Your task to perform on an android device: set default search engine in the chrome app Image 0: 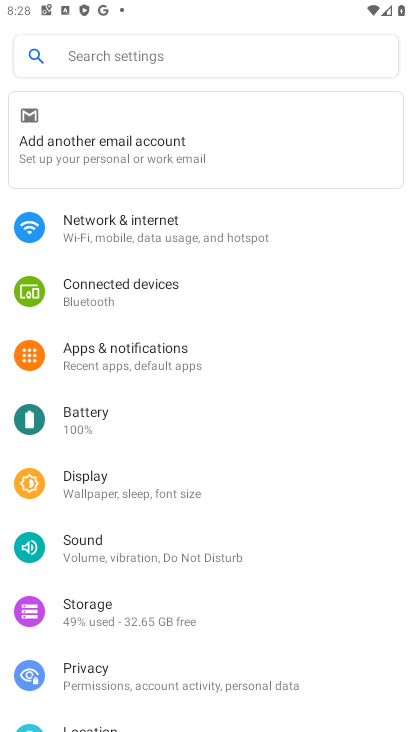
Step 0: press home button
Your task to perform on an android device: set default search engine in the chrome app Image 1: 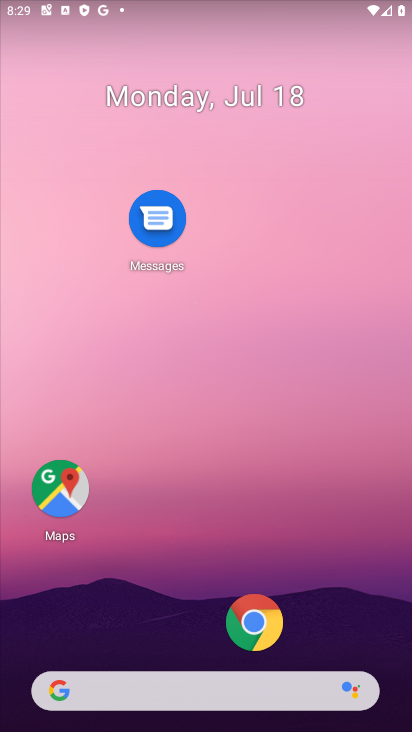
Step 1: drag from (212, 678) to (230, 144)
Your task to perform on an android device: set default search engine in the chrome app Image 2: 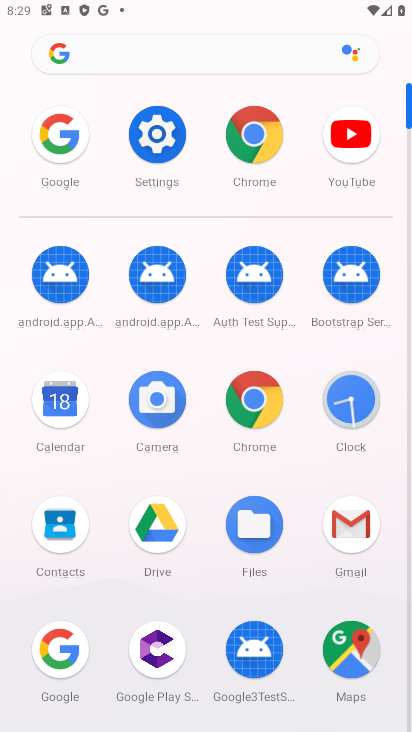
Step 2: click (261, 403)
Your task to perform on an android device: set default search engine in the chrome app Image 3: 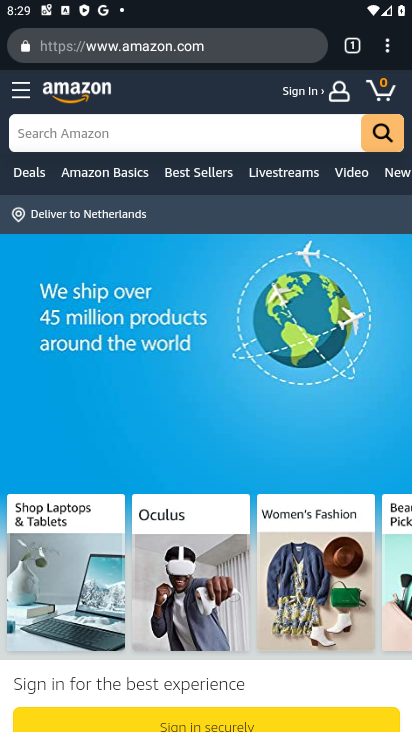
Step 3: click (387, 55)
Your task to perform on an android device: set default search engine in the chrome app Image 4: 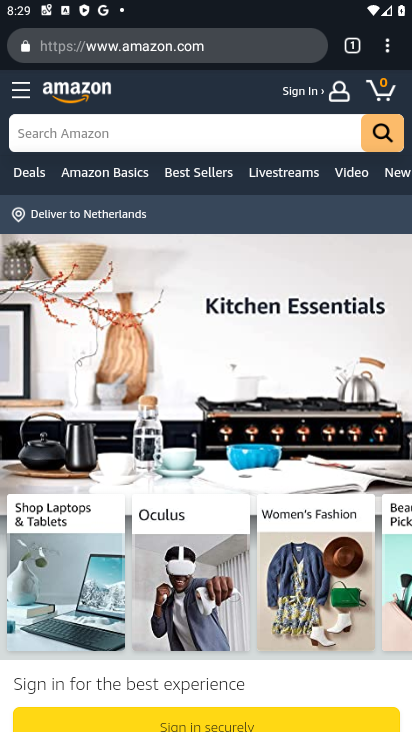
Step 4: click (385, 53)
Your task to perform on an android device: set default search engine in the chrome app Image 5: 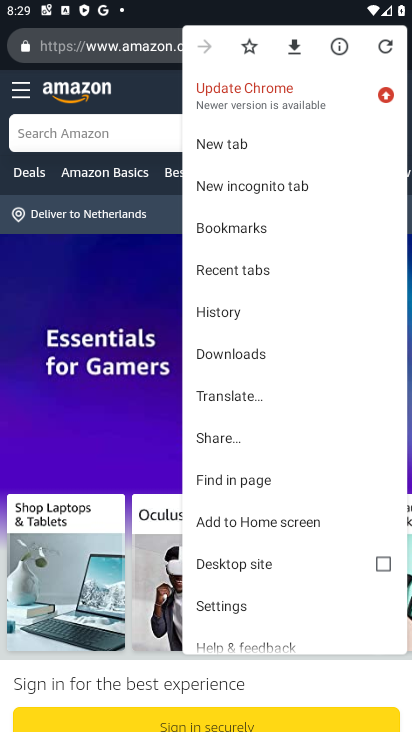
Step 5: click (239, 606)
Your task to perform on an android device: set default search engine in the chrome app Image 6: 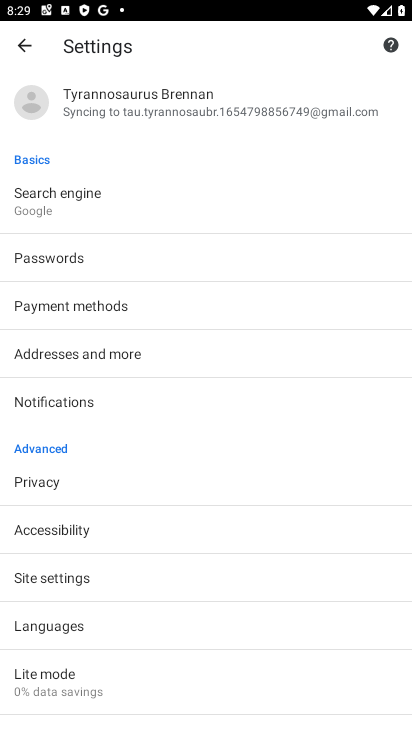
Step 6: click (76, 210)
Your task to perform on an android device: set default search engine in the chrome app Image 7: 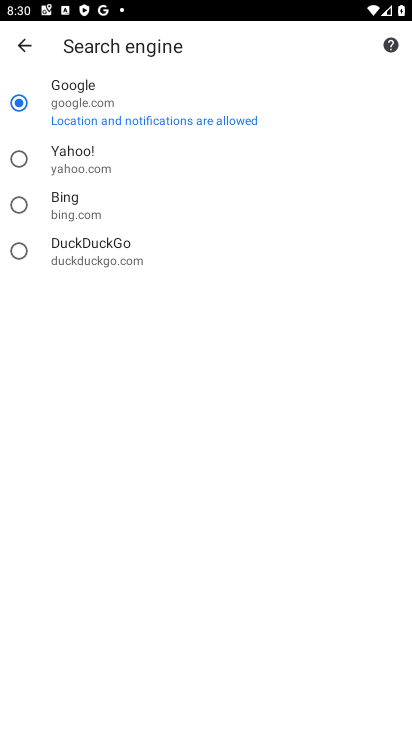
Step 7: task complete